Your task to perform on an android device: empty trash in google photos Image 0: 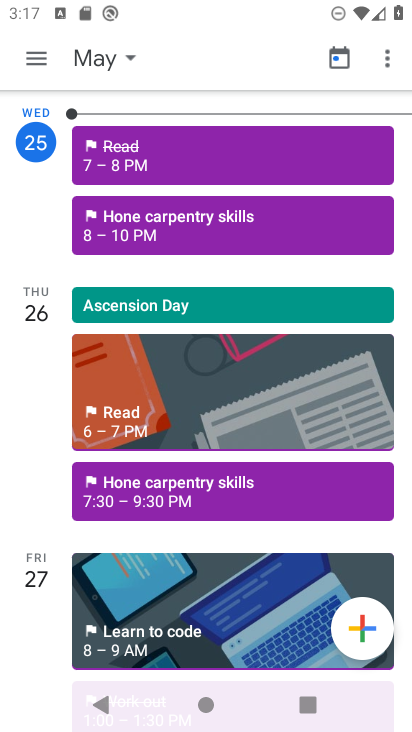
Step 0: press home button
Your task to perform on an android device: empty trash in google photos Image 1: 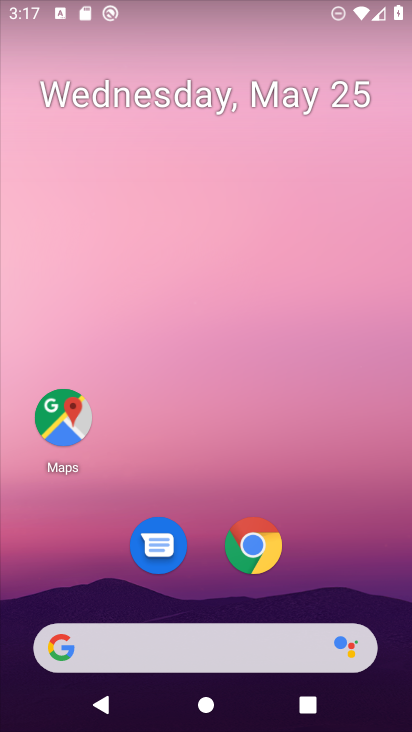
Step 1: drag from (337, 573) to (256, 38)
Your task to perform on an android device: empty trash in google photos Image 2: 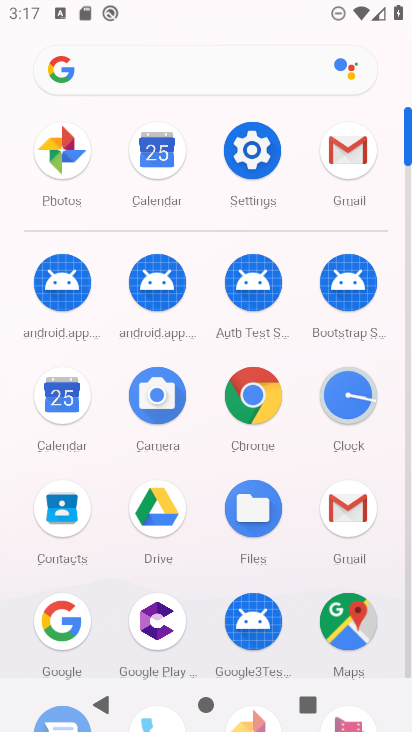
Step 2: click (66, 176)
Your task to perform on an android device: empty trash in google photos Image 3: 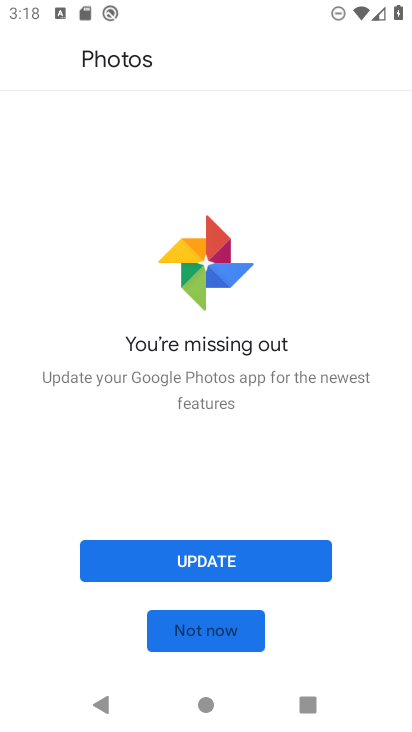
Step 3: click (228, 556)
Your task to perform on an android device: empty trash in google photos Image 4: 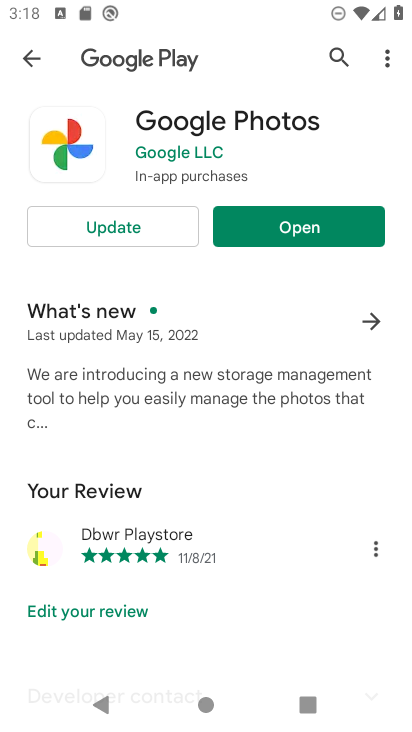
Step 4: click (163, 218)
Your task to perform on an android device: empty trash in google photos Image 5: 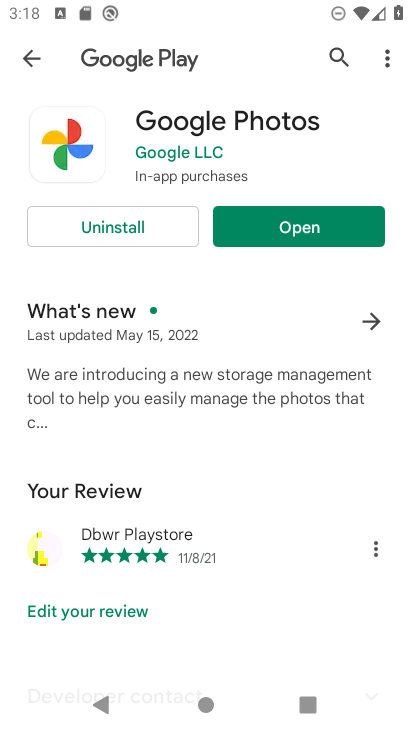
Step 5: click (293, 229)
Your task to perform on an android device: empty trash in google photos Image 6: 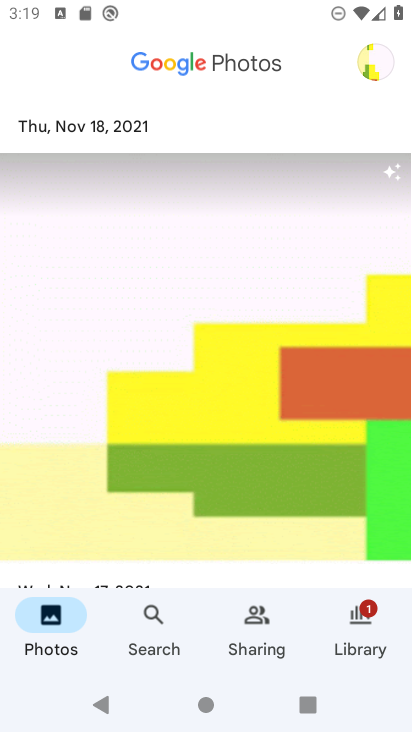
Step 6: task complete